Your task to perform on an android device: Do I have any events today? Image 0: 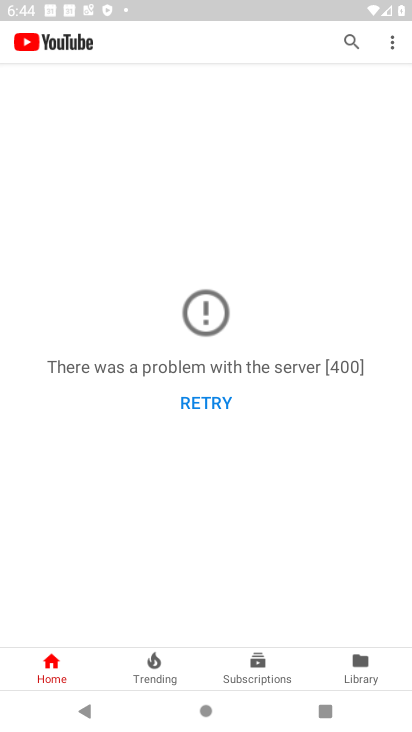
Step 0: press home button
Your task to perform on an android device: Do I have any events today? Image 1: 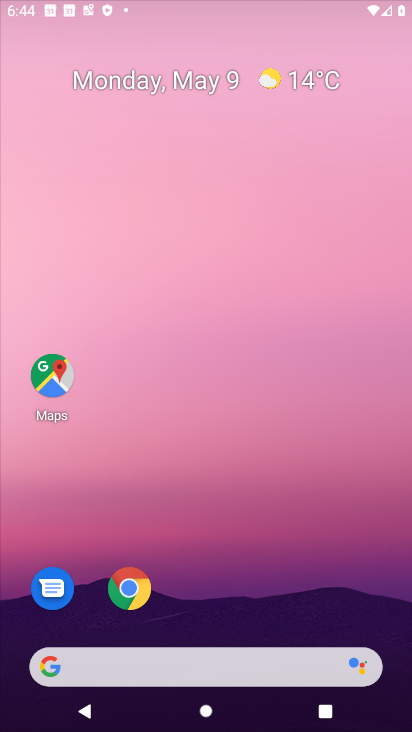
Step 1: drag from (339, 609) to (280, 63)
Your task to perform on an android device: Do I have any events today? Image 2: 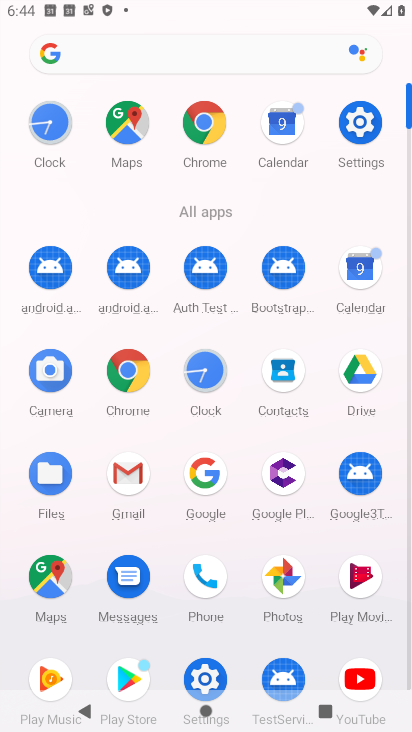
Step 2: click (365, 280)
Your task to perform on an android device: Do I have any events today? Image 3: 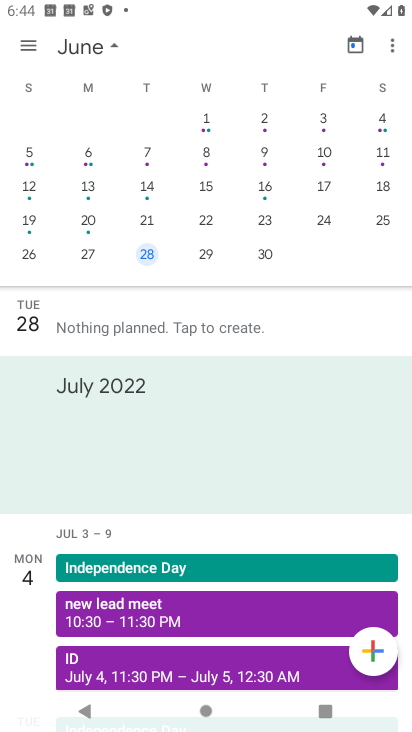
Step 3: drag from (64, 158) to (56, 125)
Your task to perform on an android device: Do I have any events today? Image 4: 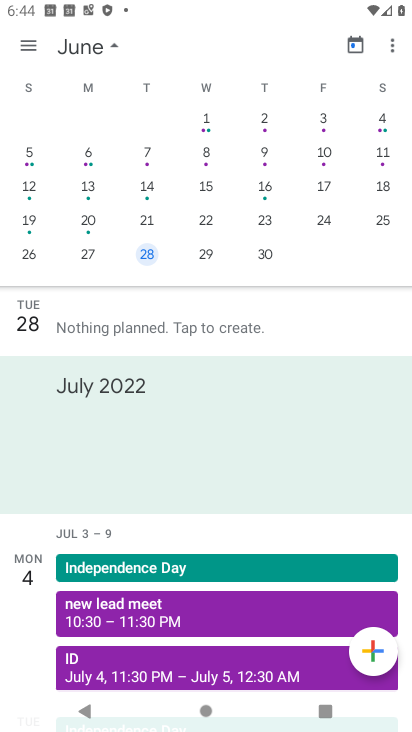
Step 4: drag from (71, 134) to (314, 132)
Your task to perform on an android device: Do I have any events today? Image 5: 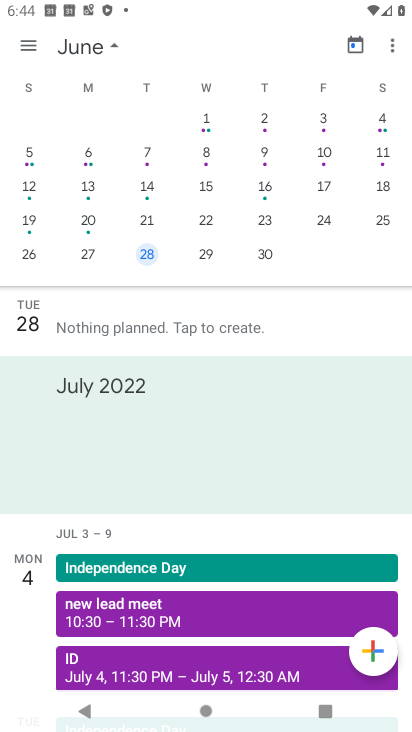
Step 5: drag from (64, 176) to (396, 201)
Your task to perform on an android device: Do I have any events today? Image 6: 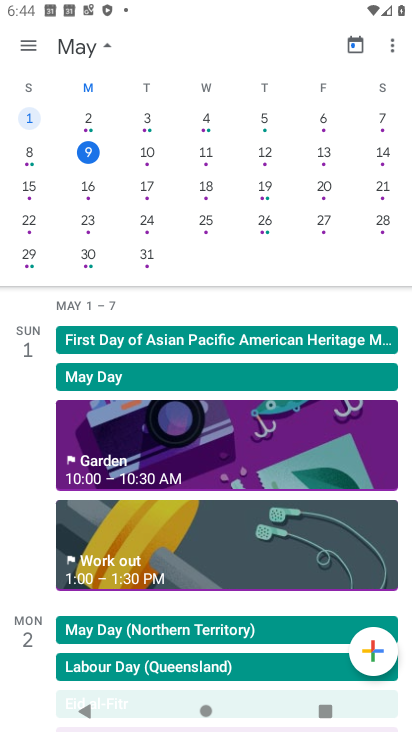
Step 6: click (146, 149)
Your task to perform on an android device: Do I have any events today? Image 7: 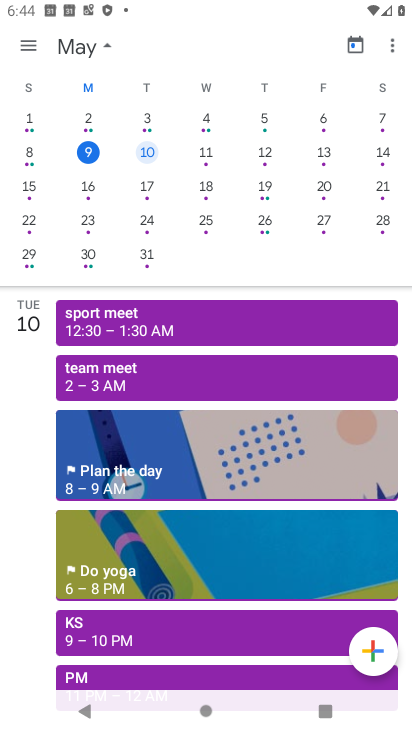
Step 7: click (154, 362)
Your task to perform on an android device: Do I have any events today? Image 8: 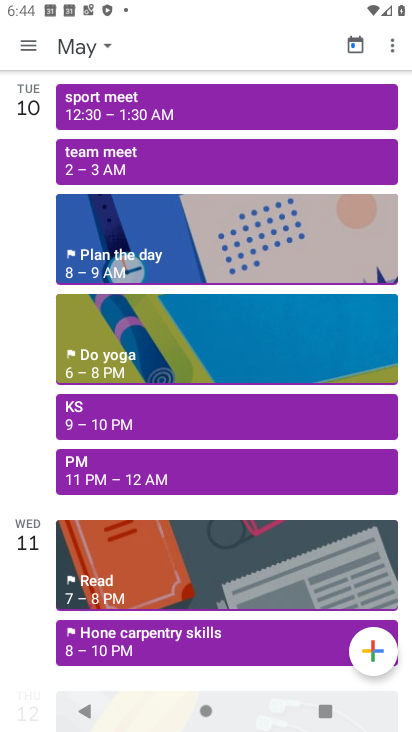
Step 8: click (197, 97)
Your task to perform on an android device: Do I have any events today? Image 9: 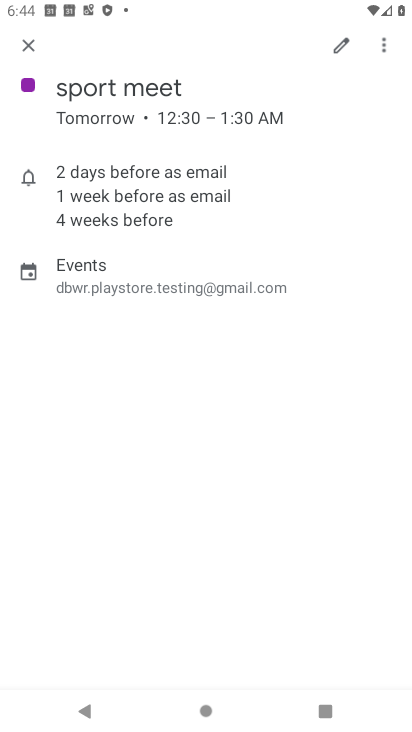
Step 9: task complete